Your task to perform on an android device: open chrome and create a bookmark for the current page Image 0: 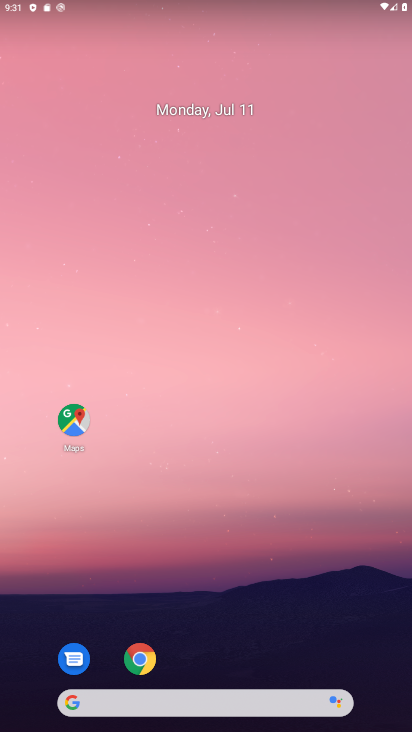
Step 0: drag from (304, 633) to (343, 0)
Your task to perform on an android device: open chrome and create a bookmark for the current page Image 1: 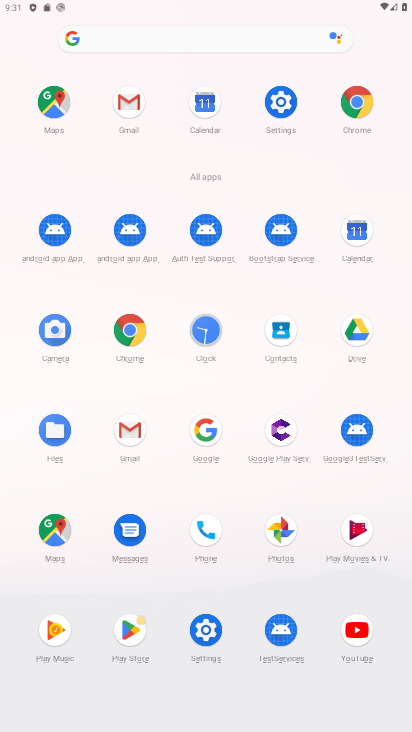
Step 1: click (366, 118)
Your task to perform on an android device: open chrome and create a bookmark for the current page Image 2: 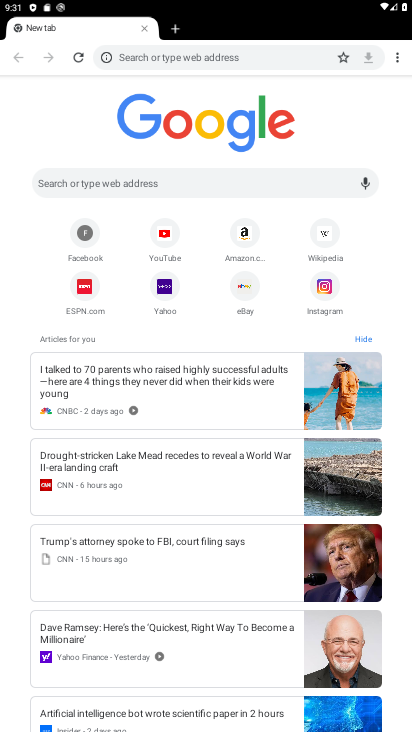
Step 2: task complete